Your task to perform on an android device: check the backup settings in the google photos Image 0: 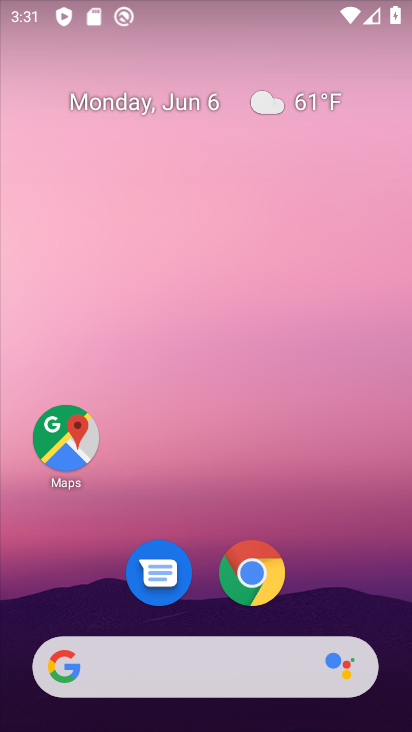
Step 0: drag from (129, 533) to (154, 316)
Your task to perform on an android device: check the backup settings in the google photos Image 1: 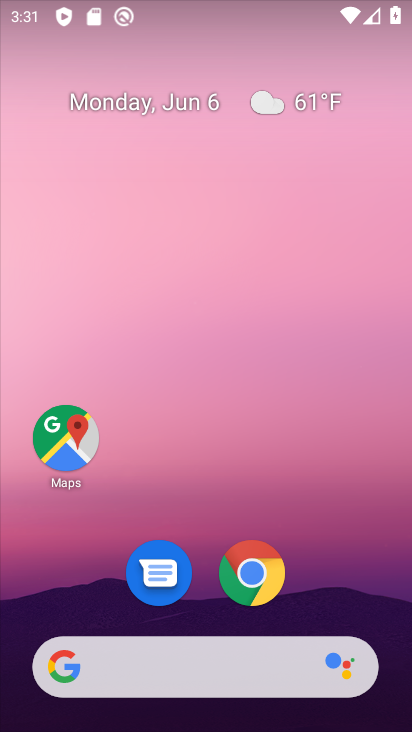
Step 1: drag from (199, 663) to (218, 149)
Your task to perform on an android device: check the backup settings in the google photos Image 2: 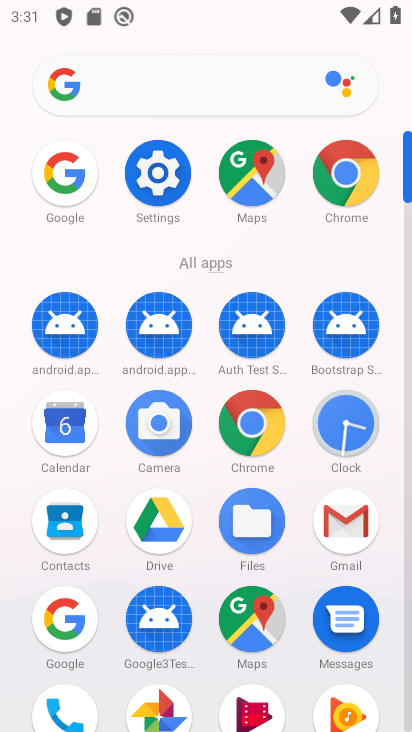
Step 2: click (170, 704)
Your task to perform on an android device: check the backup settings in the google photos Image 3: 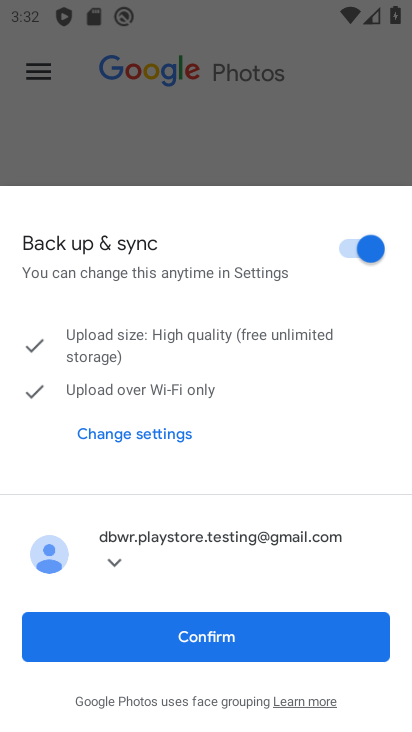
Step 3: click (193, 646)
Your task to perform on an android device: check the backup settings in the google photos Image 4: 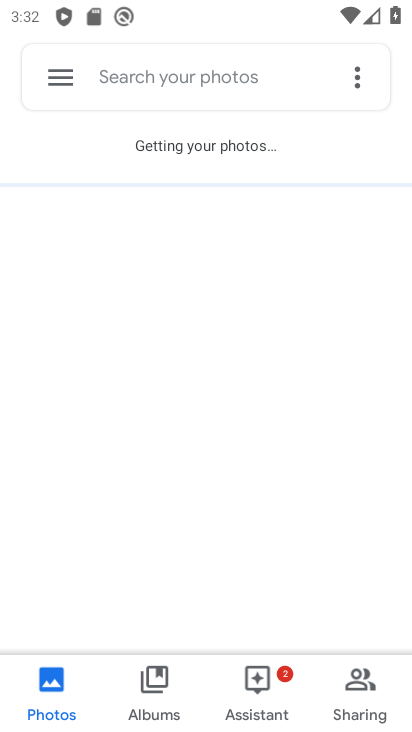
Step 4: click (54, 80)
Your task to perform on an android device: check the backup settings in the google photos Image 5: 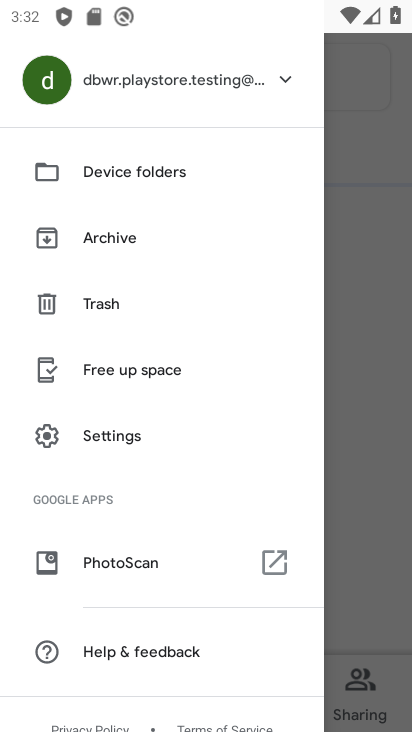
Step 5: click (115, 442)
Your task to perform on an android device: check the backup settings in the google photos Image 6: 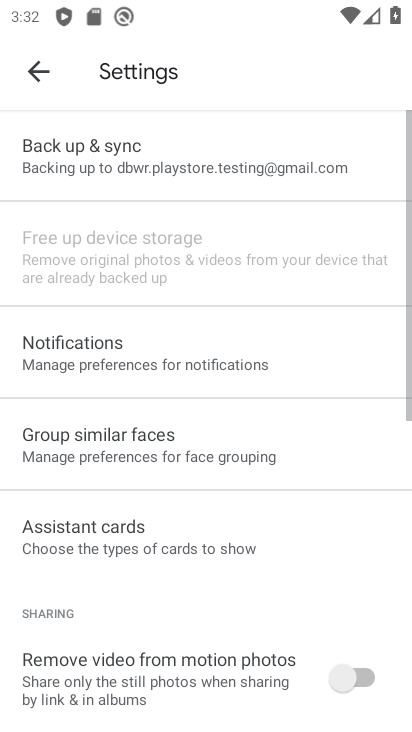
Step 6: click (139, 157)
Your task to perform on an android device: check the backup settings in the google photos Image 7: 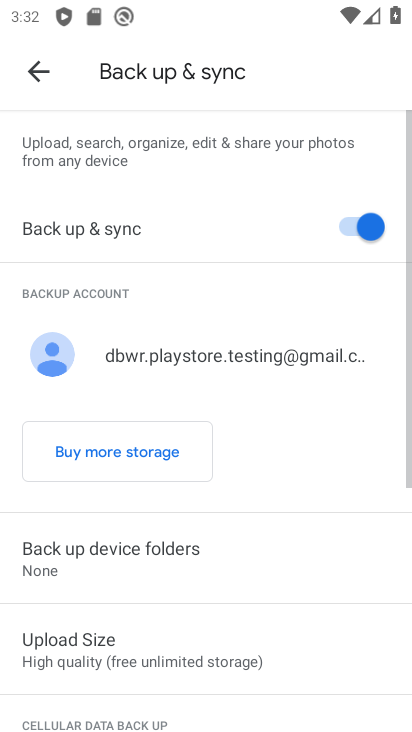
Step 7: task complete